Your task to perform on an android device: turn off sleep mode Image 0: 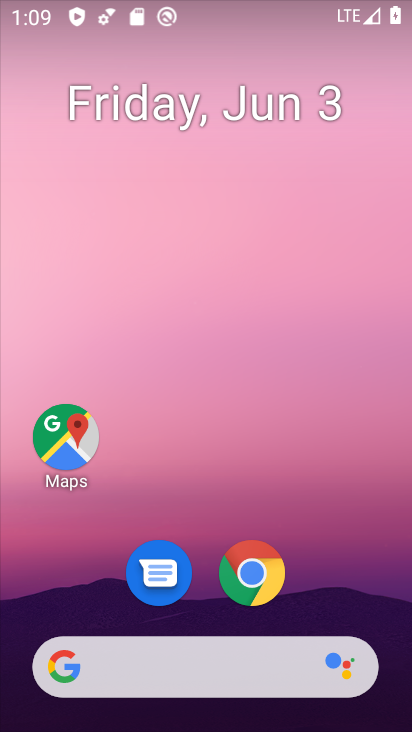
Step 0: drag from (328, 600) to (369, 154)
Your task to perform on an android device: turn off sleep mode Image 1: 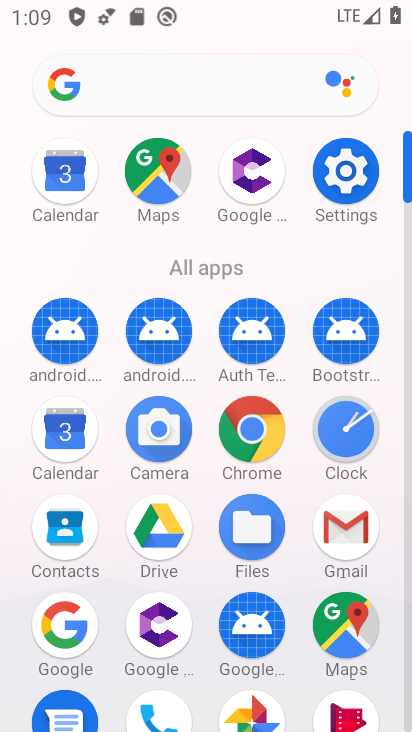
Step 1: click (361, 191)
Your task to perform on an android device: turn off sleep mode Image 2: 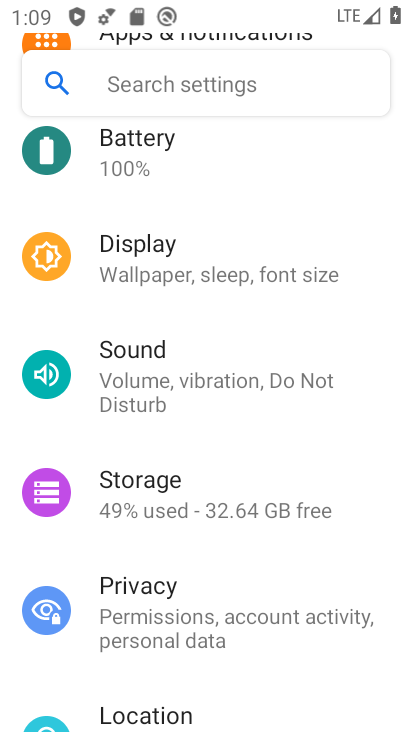
Step 2: drag from (372, 482) to (372, 374)
Your task to perform on an android device: turn off sleep mode Image 3: 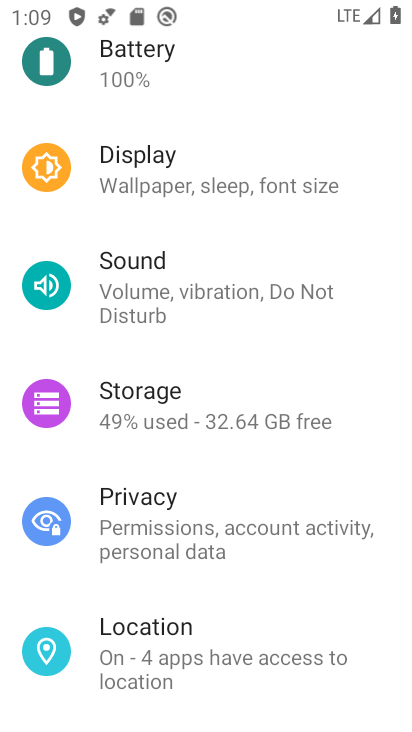
Step 3: drag from (349, 575) to (358, 373)
Your task to perform on an android device: turn off sleep mode Image 4: 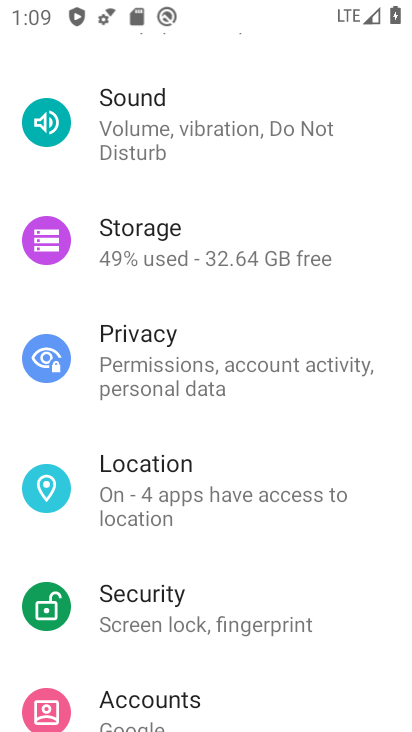
Step 4: drag from (341, 587) to (382, 327)
Your task to perform on an android device: turn off sleep mode Image 5: 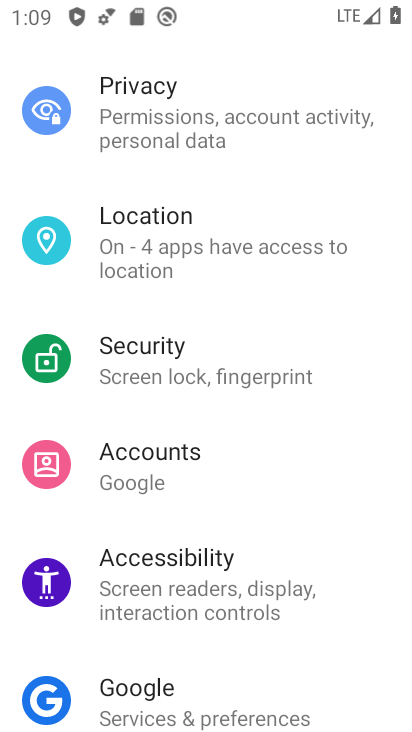
Step 5: drag from (378, 276) to (366, 445)
Your task to perform on an android device: turn off sleep mode Image 6: 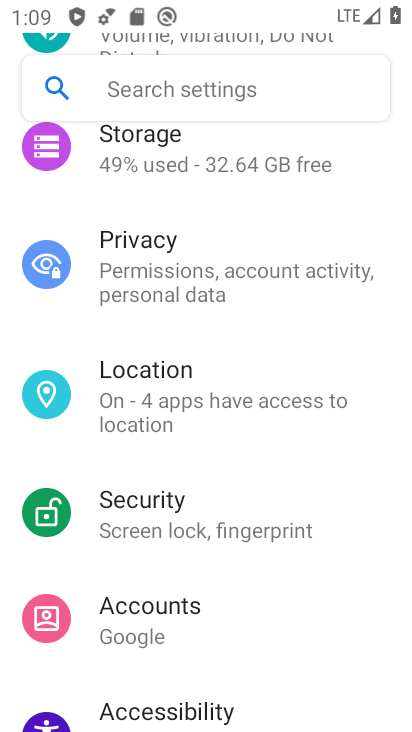
Step 6: drag from (362, 309) to (356, 436)
Your task to perform on an android device: turn off sleep mode Image 7: 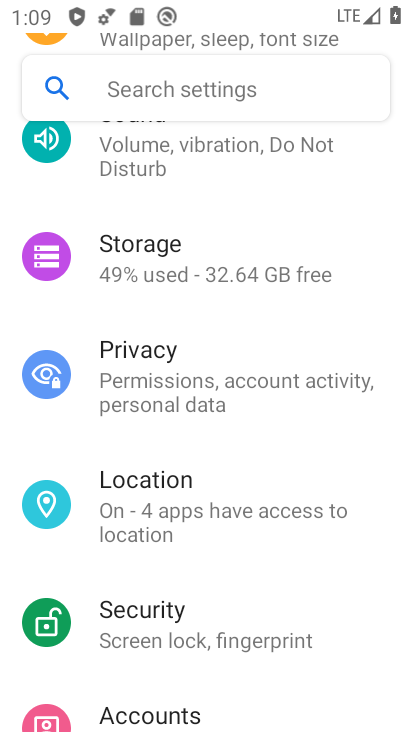
Step 7: drag from (343, 249) to (341, 412)
Your task to perform on an android device: turn off sleep mode Image 8: 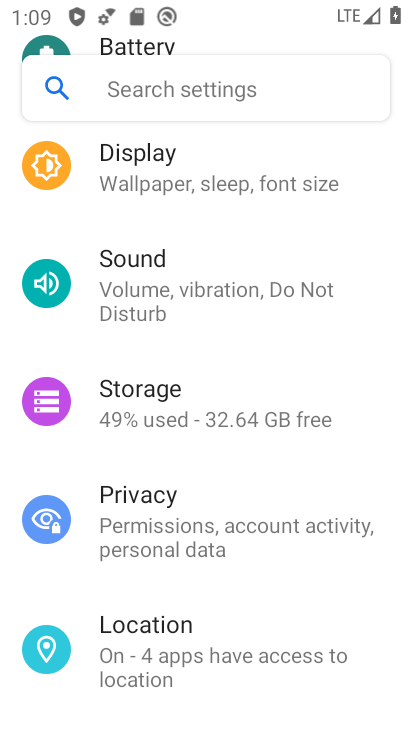
Step 8: drag from (340, 245) to (336, 386)
Your task to perform on an android device: turn off sleep mode Image 9: 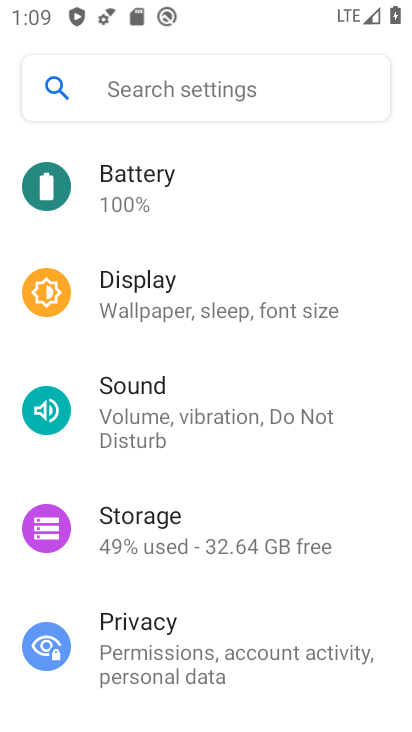
Step 9: click (308, 293)
Your task to perform on an android device: turn off sleep mode Image 10: 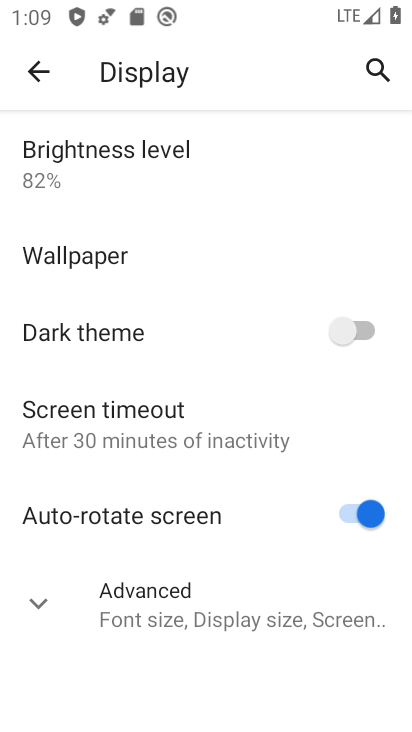
Step 10: click (184, 601)
Your task to perform on an android device: turn off sleep mode Image 11: 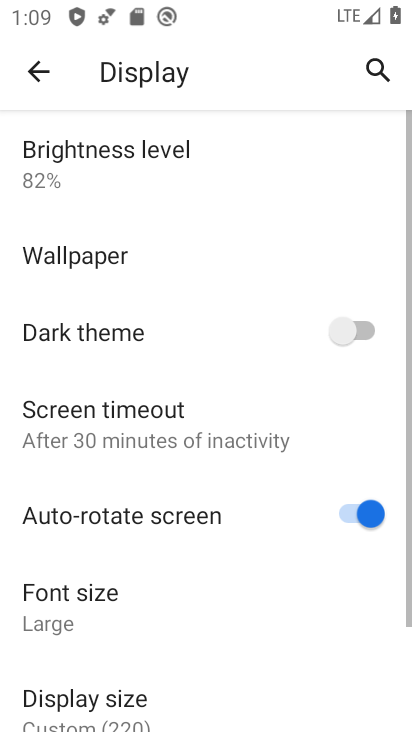
Step 11: drag from (315, 516) to (306, 423)
Your task to perform on an android device: turn off sleep mode Image 12: 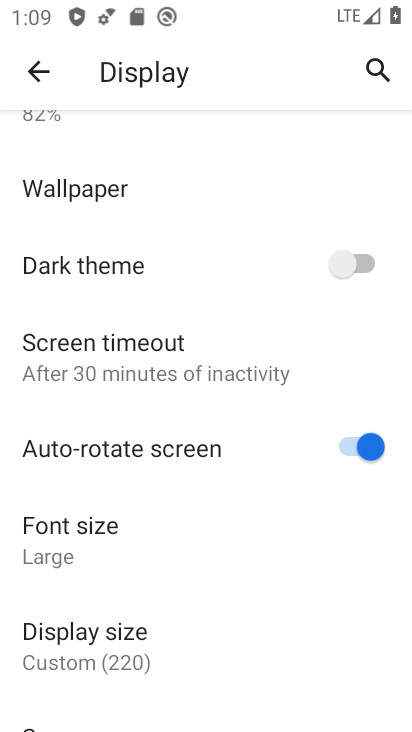
Step 12: drag from (227, 553) to (246, 332)
Your task to perform on an android device: turn off sleep mode Image 13: 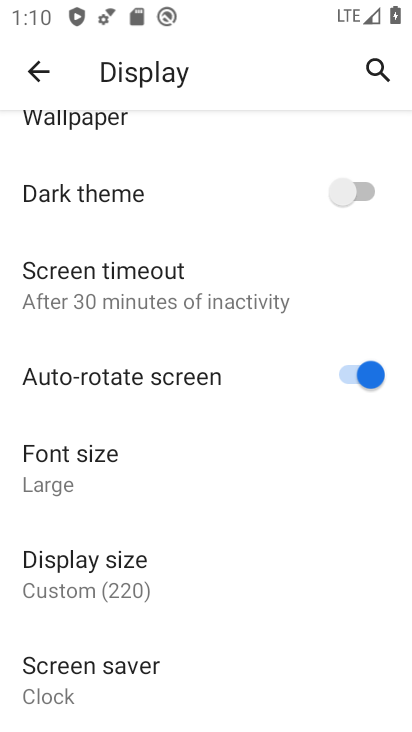
Step 13: drag from (230, 525) to (226, 376)
Your task to perform on an android device: turn off sleep mode Image 14: 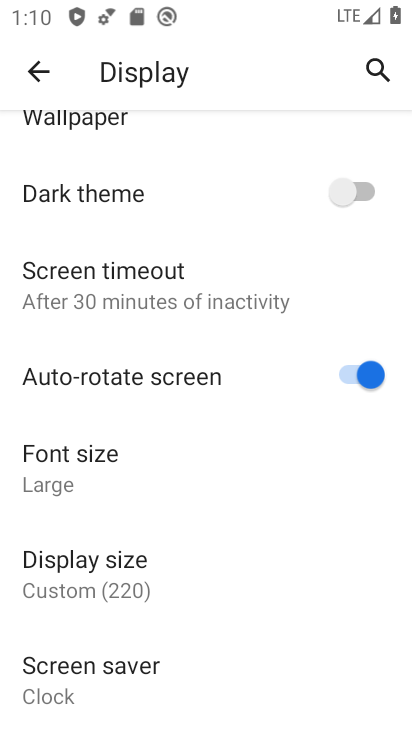
Step 14: click (228, 323)
Your task to perform on an android device: turn off sleep mode Image 15: 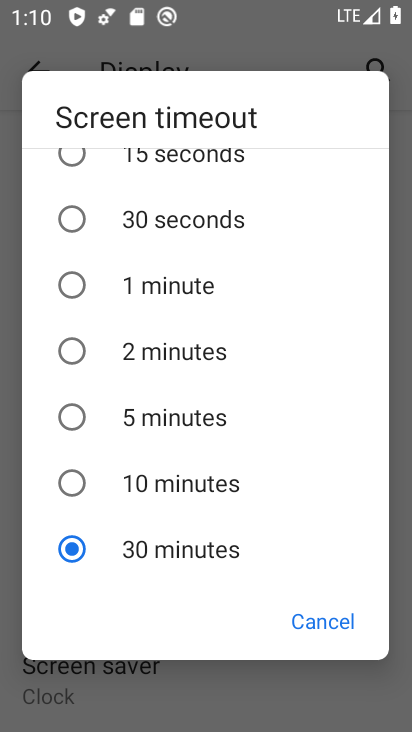
Step 15: click (220, 346)
Your task to perform on an android device: turn off sleep mode Image 16: 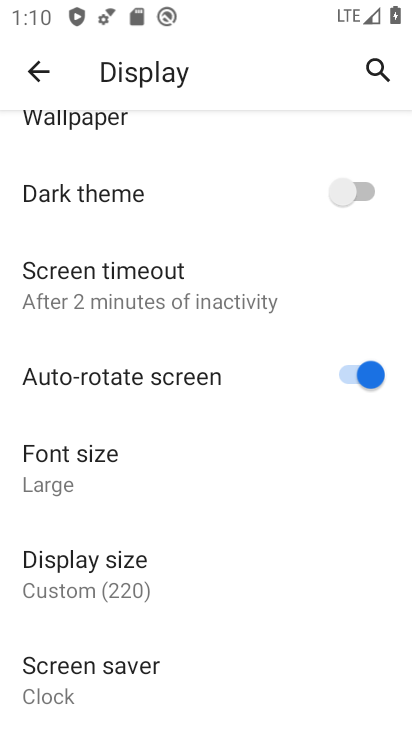
Step 16: task complete